Your task to perform on an android device: change the upload size in google photos Image 0: 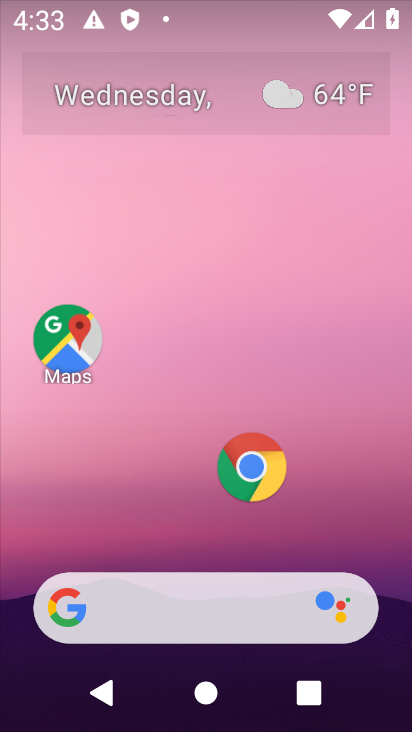
Step 0: drag from (146, 543) to (193, 199)
Your task to perform on an android device: change the upload size in google photos Image 1: 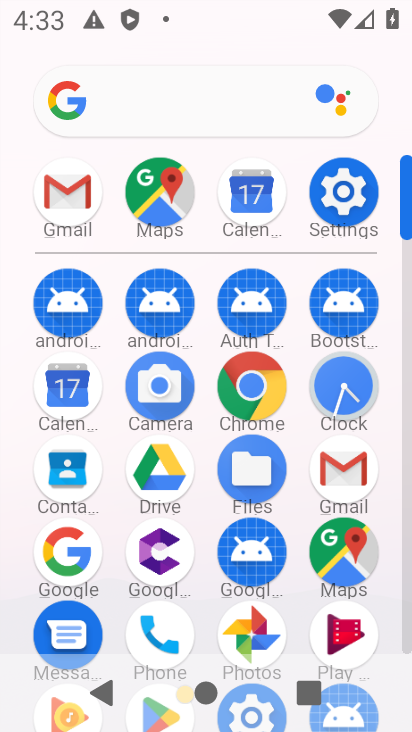
Step 1: click (247, 631)
Your task to perform on an android device: change the upload size in google photos Image 2: 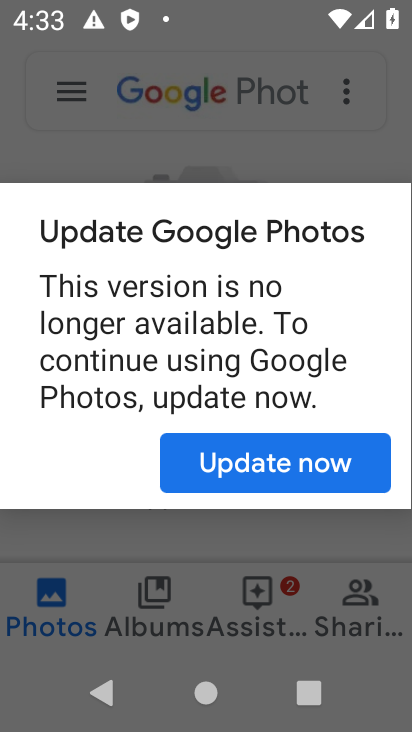
Step 2: task complete